Your task to perform on an android device: turn pop-ups off in chrome Image 0: 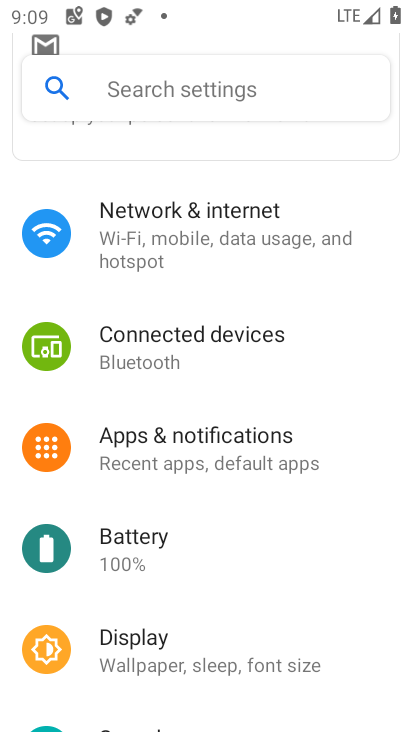
Step 0: press home button
Your task to perform on an android device: turn pop-ups off in chrome Image 1: 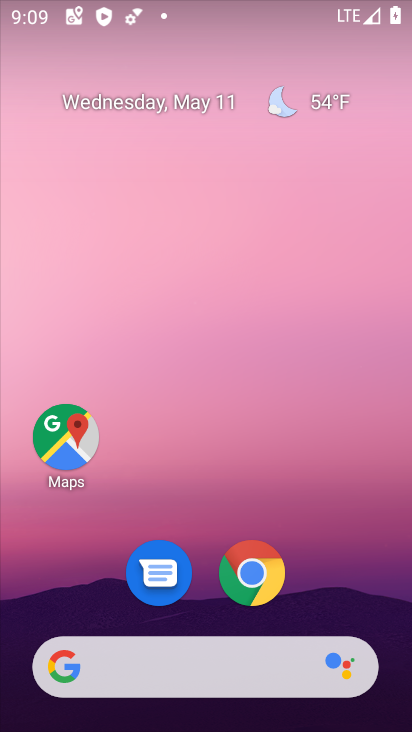
Step 1: drag from (252, 690) to (380, 0)
Your task to perform on an android device: turn pop-ups off in chrome Image 2: 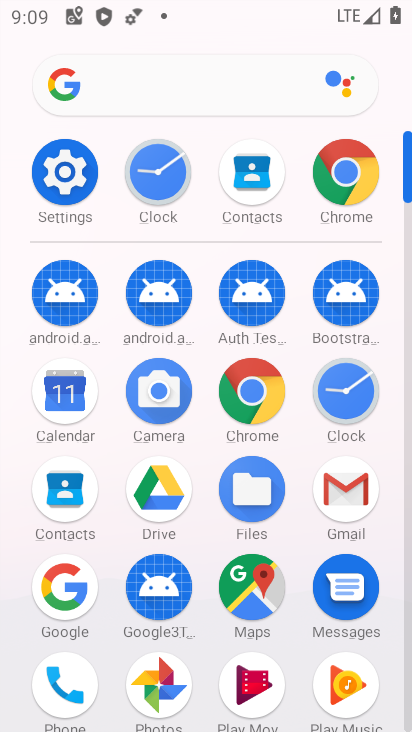
Step 2: click (267, 397)
Your task to perform on an android device: turn pop-ups off in chrome Image 3: 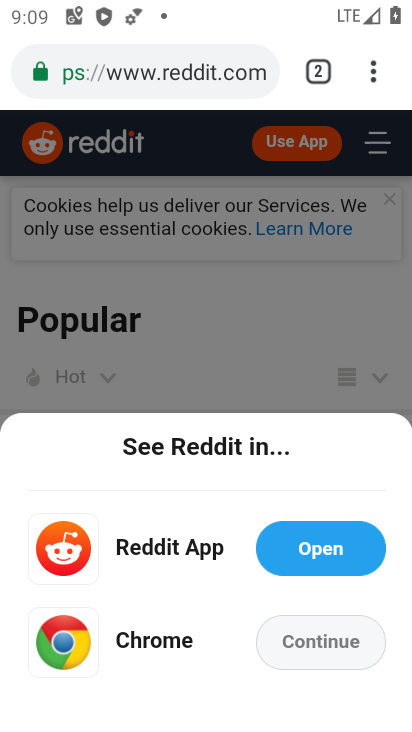
Step 3: click (372, 67)
Your task to perform on an android device: turn pop-ups off in chrome Image 4: 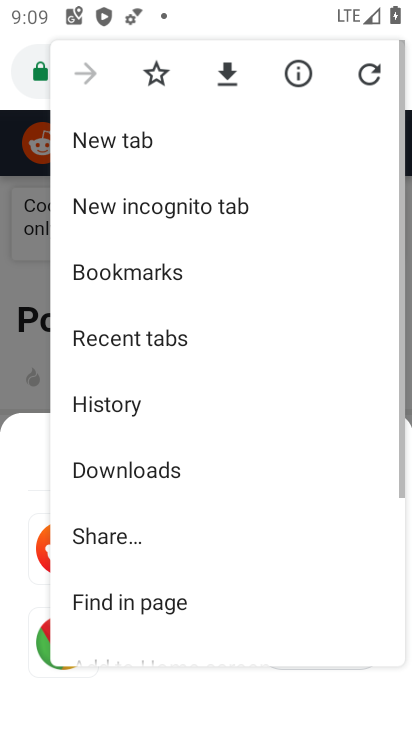
Step 4: drag from (161, 614) to (227, 180)
Your task to perform on an android device: turn pop-ups off in chrome Image 5: 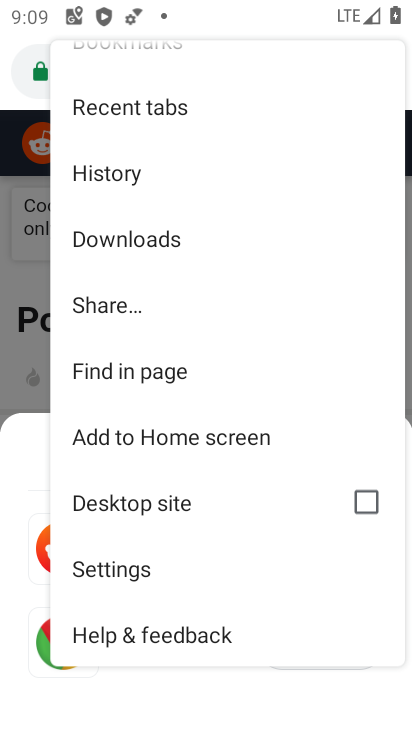
Step 5: click (153, 571)
Your task to perform on an android device: turn pop-ups off in chrome Image 6: 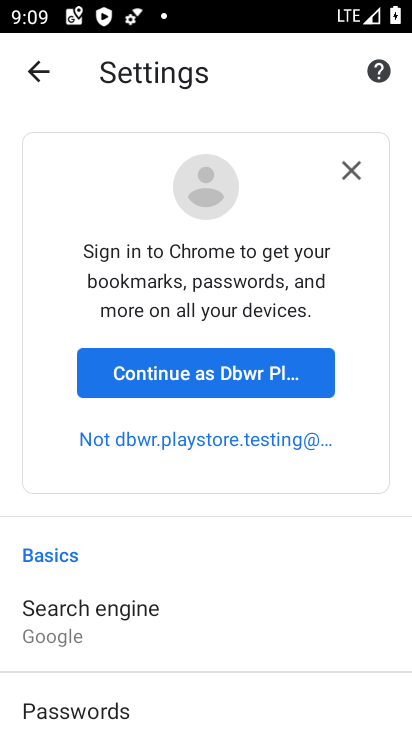
Step 6: drag from (143, 640) to (160, 117)
Your task to perform on an android device: turn pop-ups off in chrome Image 7: 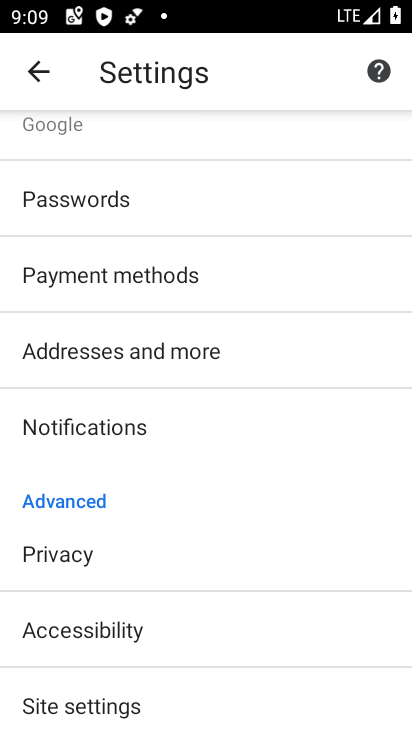
Step 7: click (113, 701)
Your task to perform on an android device: turn pop-ups off in chrome Image 8: 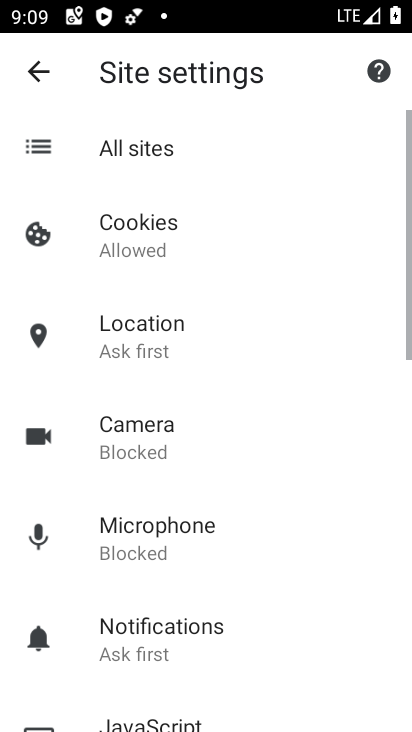
Step 8: drag from (264, 692) to (267, 163)
Your task to perform on an android device: turn pop-ups off in chrome Image 9: 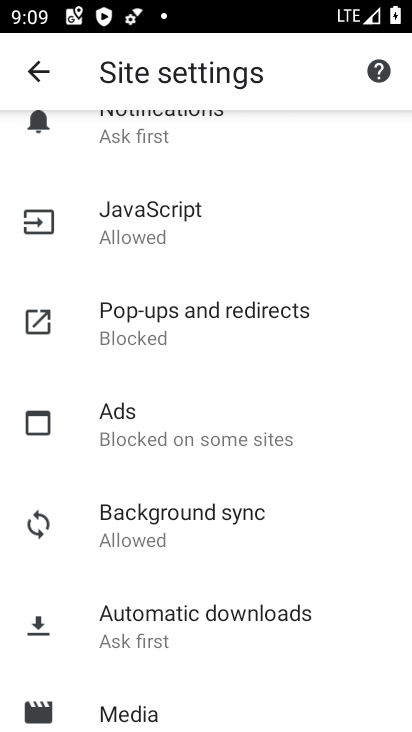
Step 9: click (196, 311)
Your task to perform on an android device: turn pop-ups off in chrome Image 10: 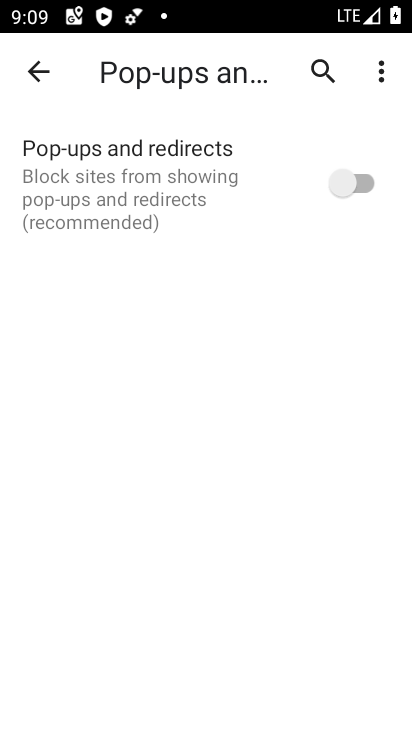
Step 10: task complete